Your task to perform on an android device: see sites visited before in the chrome app Image 0: 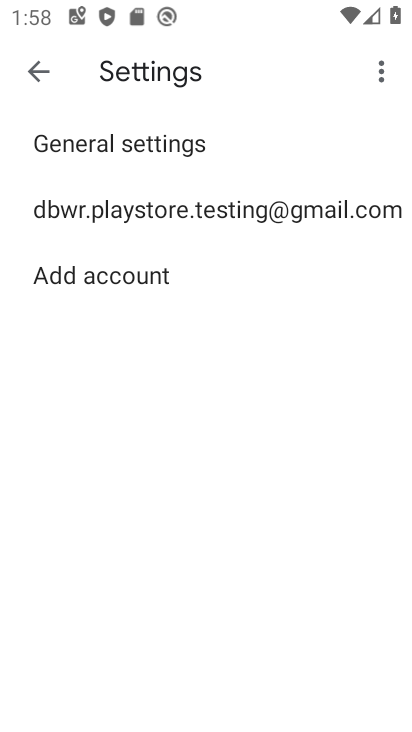
Step 0: press home button
Your task to perform on an android device: see sites visited before in the chrome app Image 1: 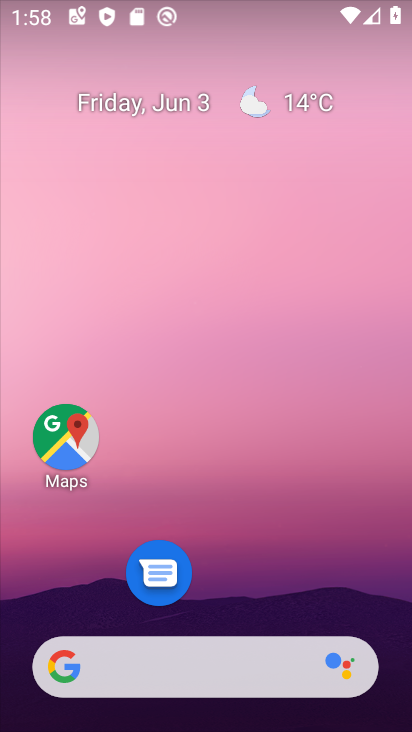
Step 1: drag from (260, 659) to (264, 33)
Your task to perform on an android device: see sites visited before in the chrome app Image 2: 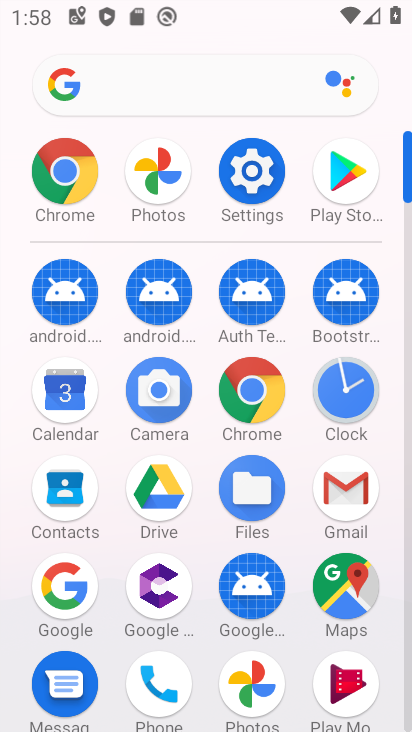
Step 2: click (271, 390)
Your task to perform on an android device: see sites visited before in the chrome app Image 3: 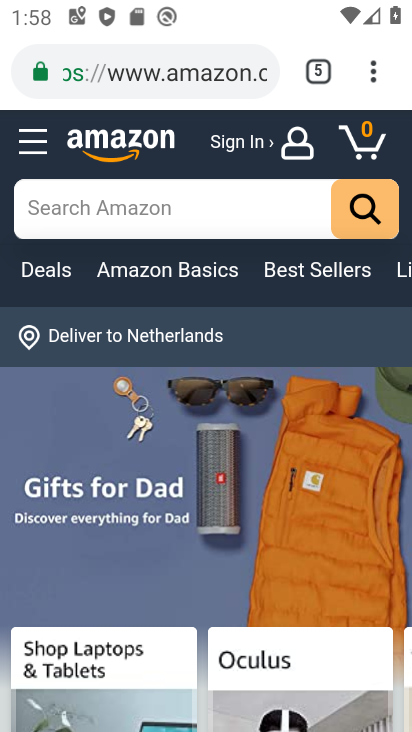
Step 3: task complete